Your task to perform on an android device: Is it going to rain today? Image 0: 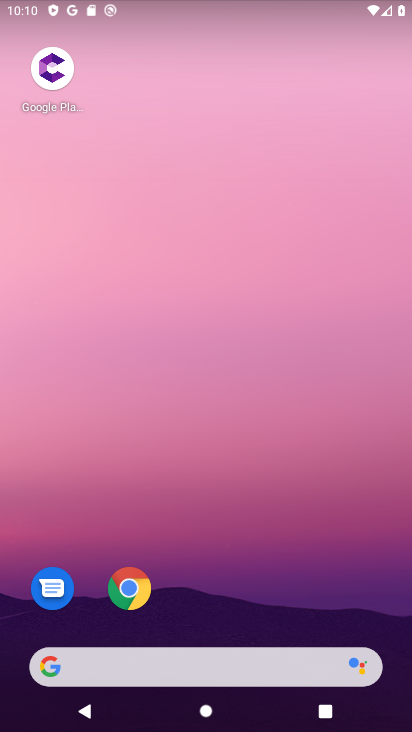
Step 0: click (140, 579)
Your task to perform on an android device: Is it going to rain today? Image 1: 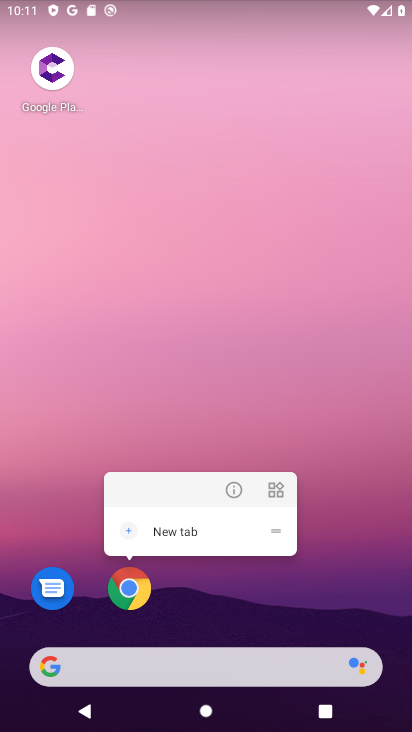
Step 1: click (132, 604)
Your task to perform on an android device: Is it going to rain today? Image 2: 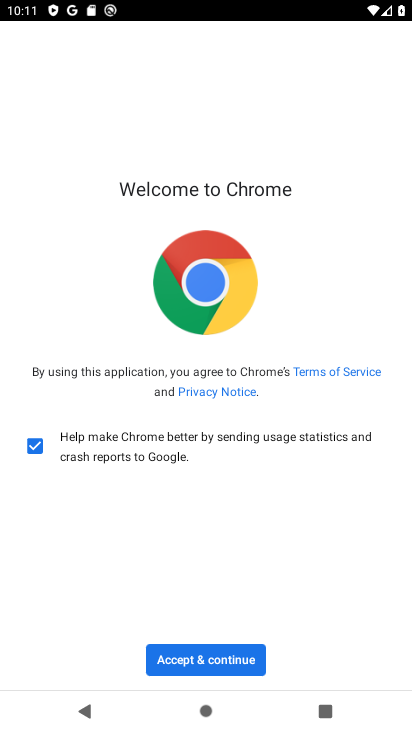
Step 2: click (160, 648)
Your task to perform on an android device: Is it going to rain today? Image 3: 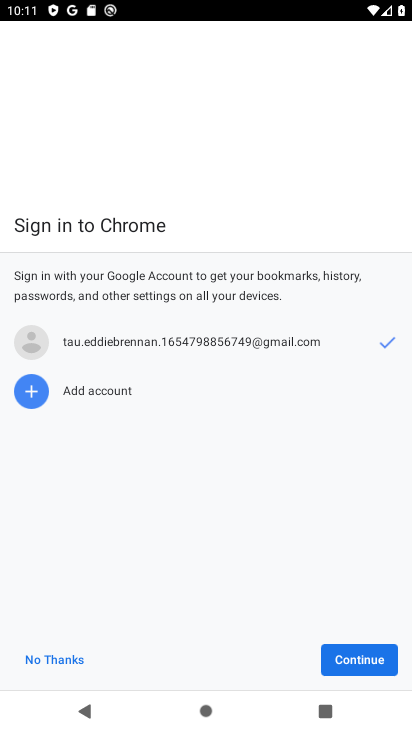
Step 3: click (354, 657)
Your task to perform on an android device: Is it going to rain today? Image 4: 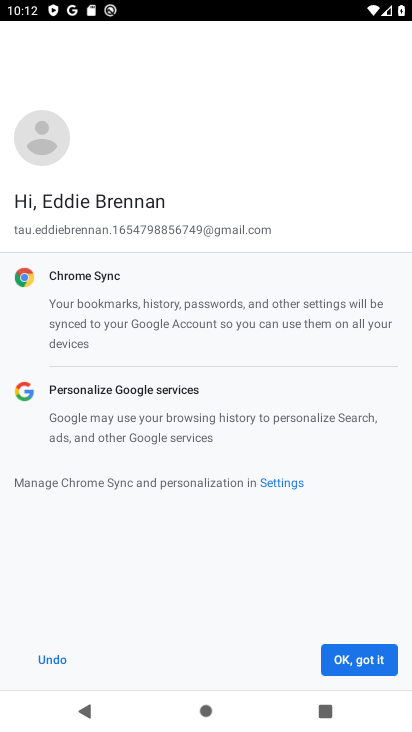
Step 4: click (361, 672)
Your task to perform on an android device: Is it going to rain today? Image 5: 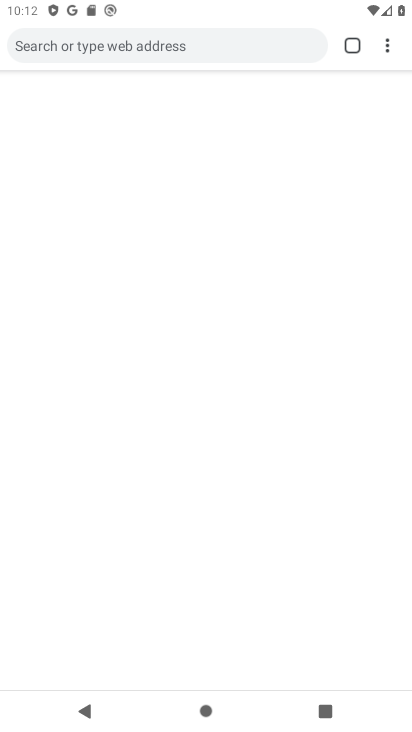
Step 5: click (175, 53)
Your task to perform on an android device: Is it going to rain today? Image 6: 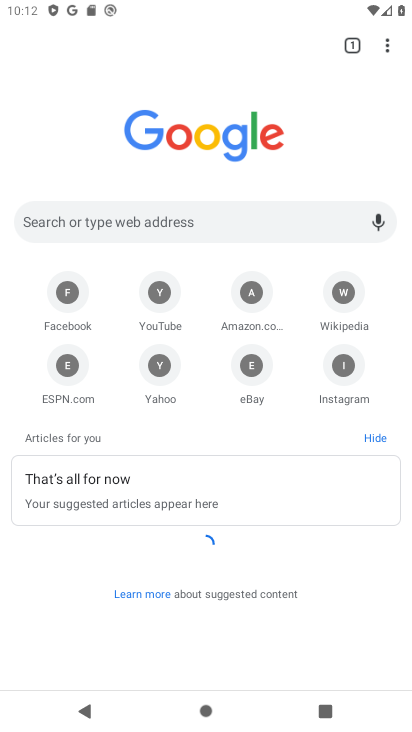
Step 6: click (165, 211)
Your task to perform on an android device: Is it going to rain today? Image 7: 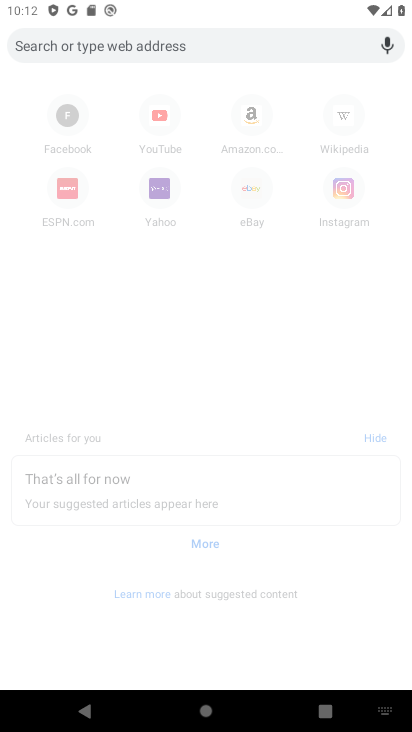
Step 7: type "Is it going to rain today?"
Your task to perform on an android device: Is it going to rain today? Image 8: 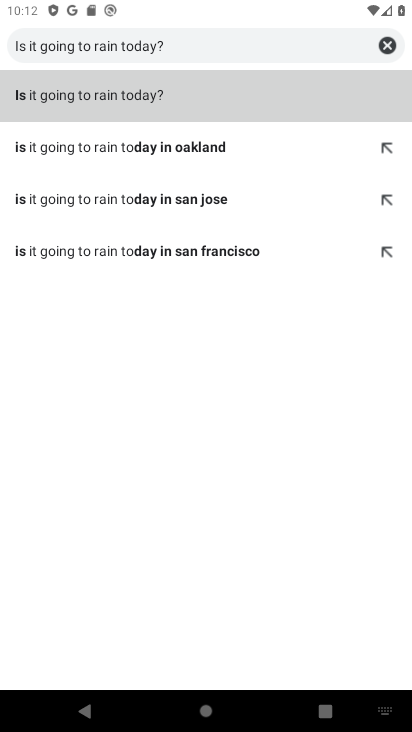
Step 8: click (84, 90)
Your task to perform on an android device: Is it going to rain today? Image 9: 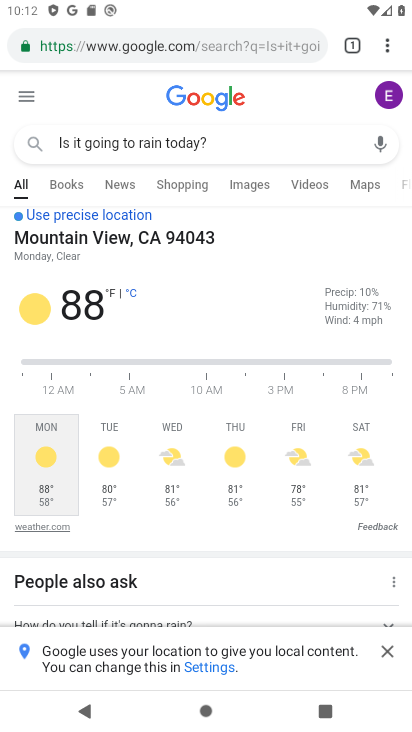
Step 9: task complete